Your task to perform on an android device: Do I have any events tomorrow? Image 0: 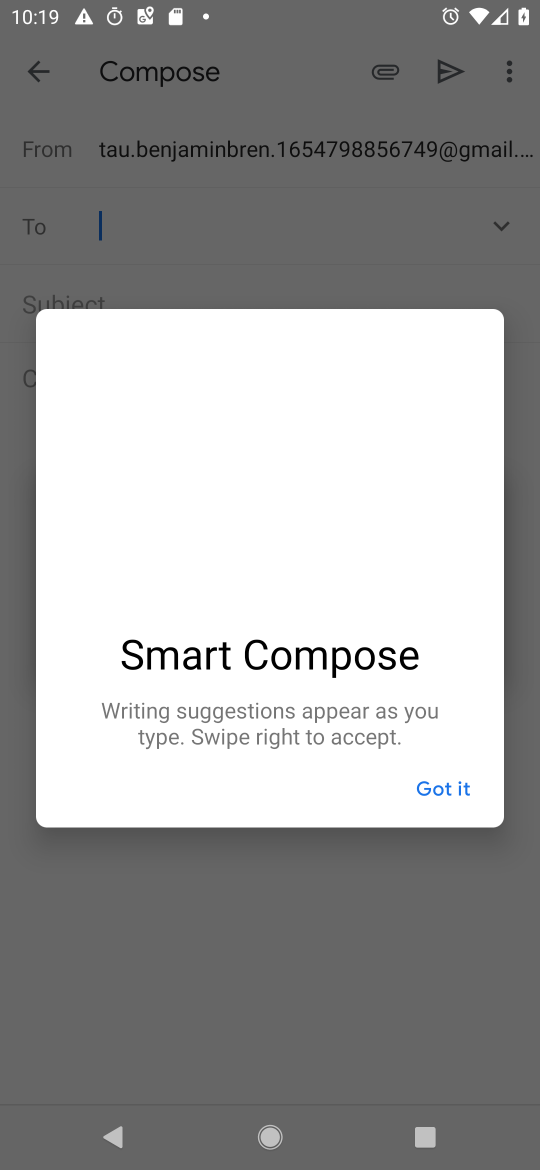
Step 0: press home button
Your task to perform on an android device: Do I have any events tomorrow? Image 1: 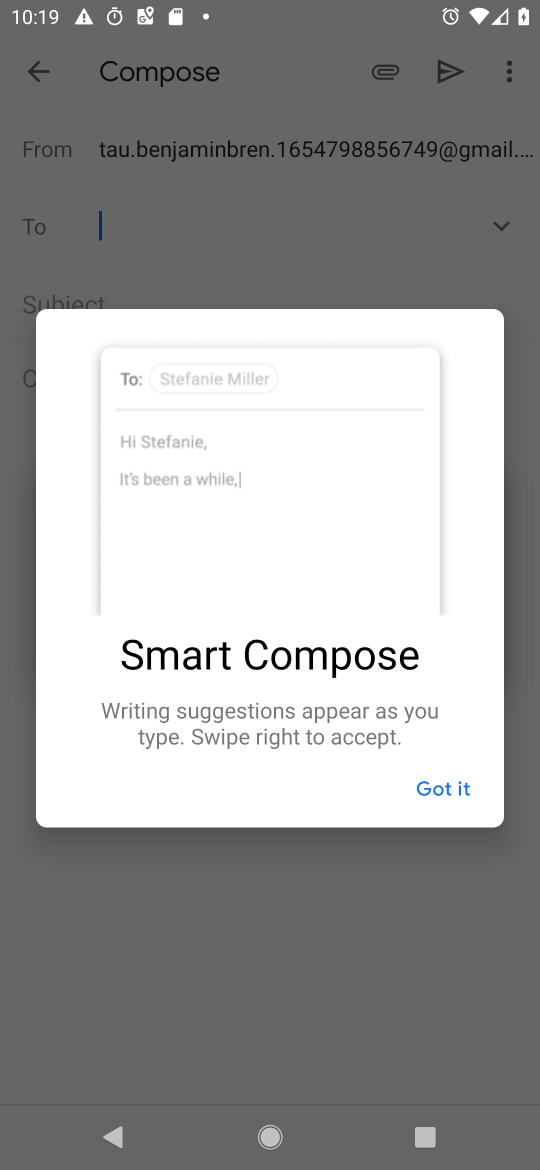
Step 1: press home button
Your task to perform on an android device: Do I have any events tomorrow? Image 2: 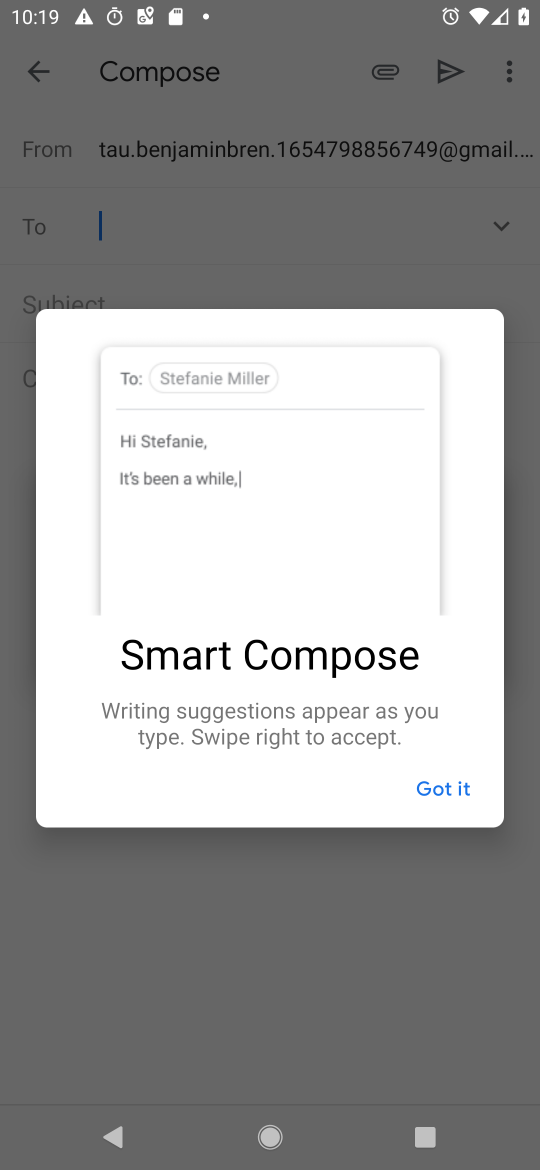
Step 2: click (328, 72)
Your task to perform on an android device: Do I have any events tomorrow? Image 3: 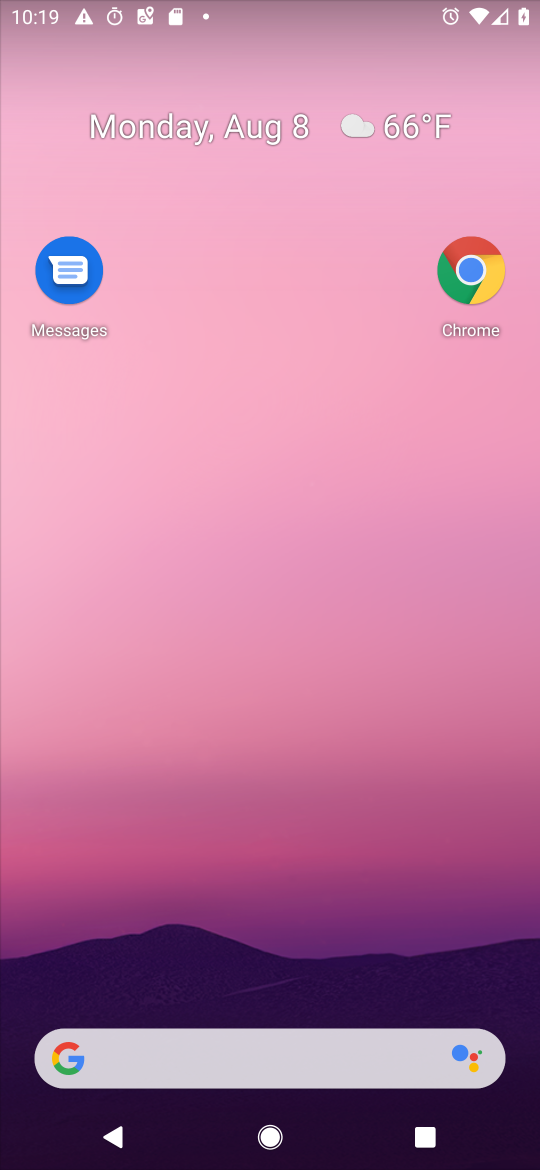
Step 3: drag from (247, 887) to (286, 7)
Your task to perform on an android device: Do I have any events tomorrow? Image 4: 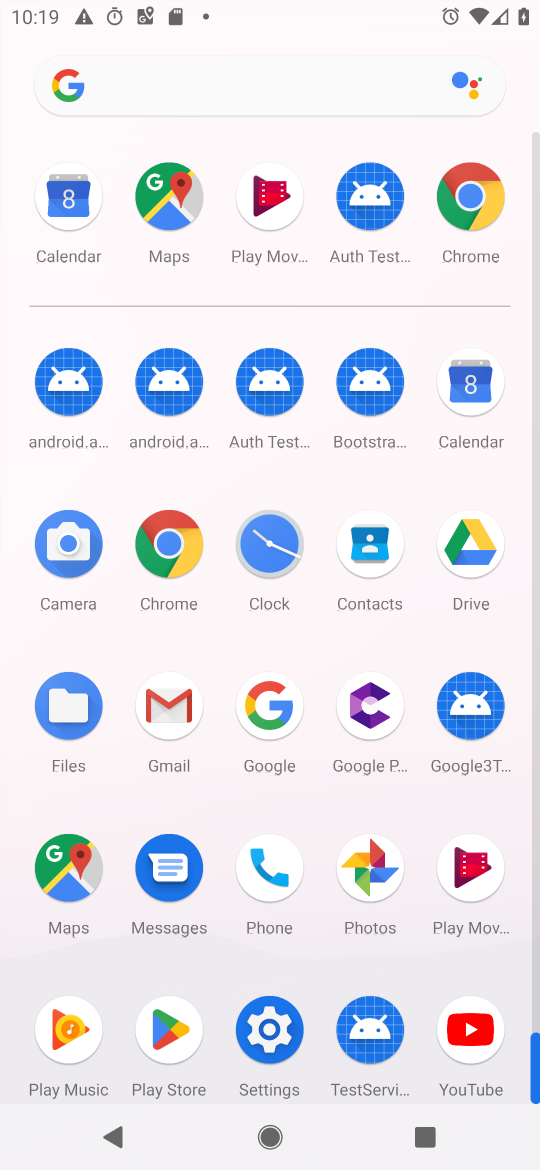
Step 4: click (473, 368)
Your task to perform on an android device: Do I have any events tomorrow? Image 5: 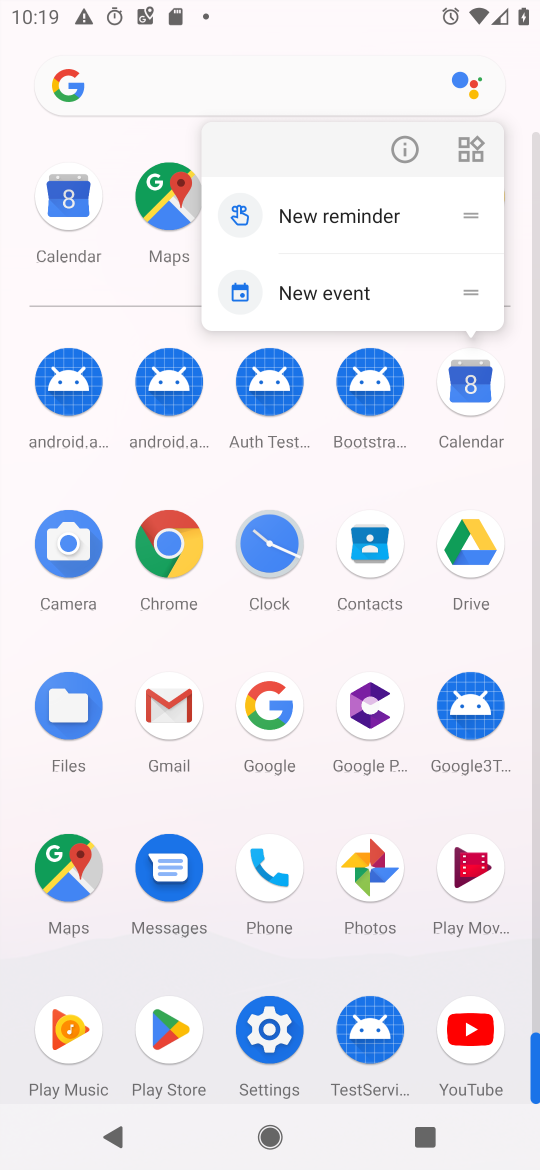
Step 5: click (399, 160)
Your task to perform on an android device: Do I have any events tomorrow? Image 6: 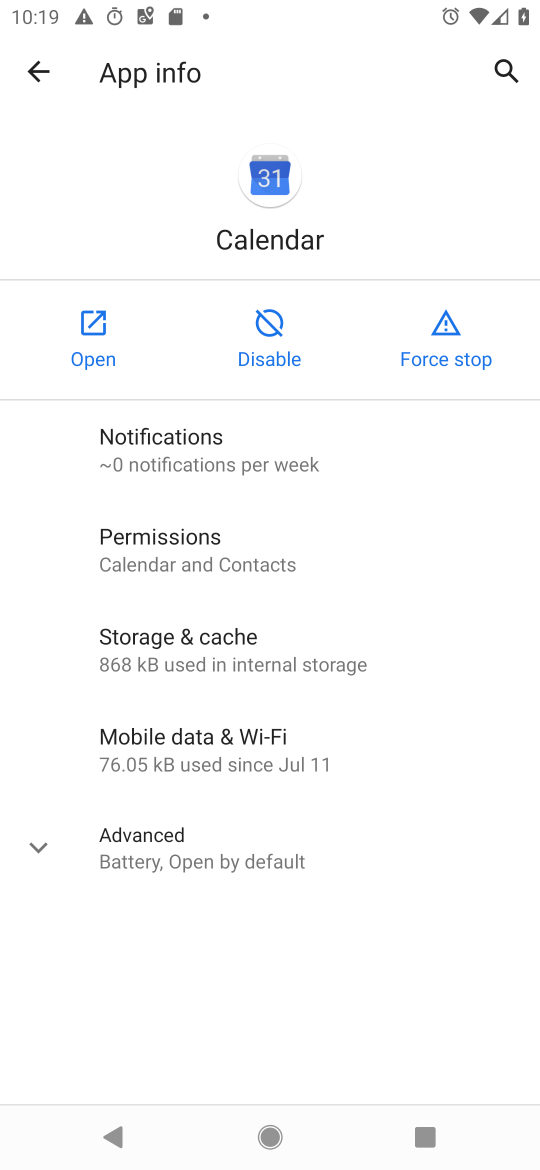
Step 6: click (78, 315)
Your task to perform on an android device: Do I have any events tomorrow? Image 7: 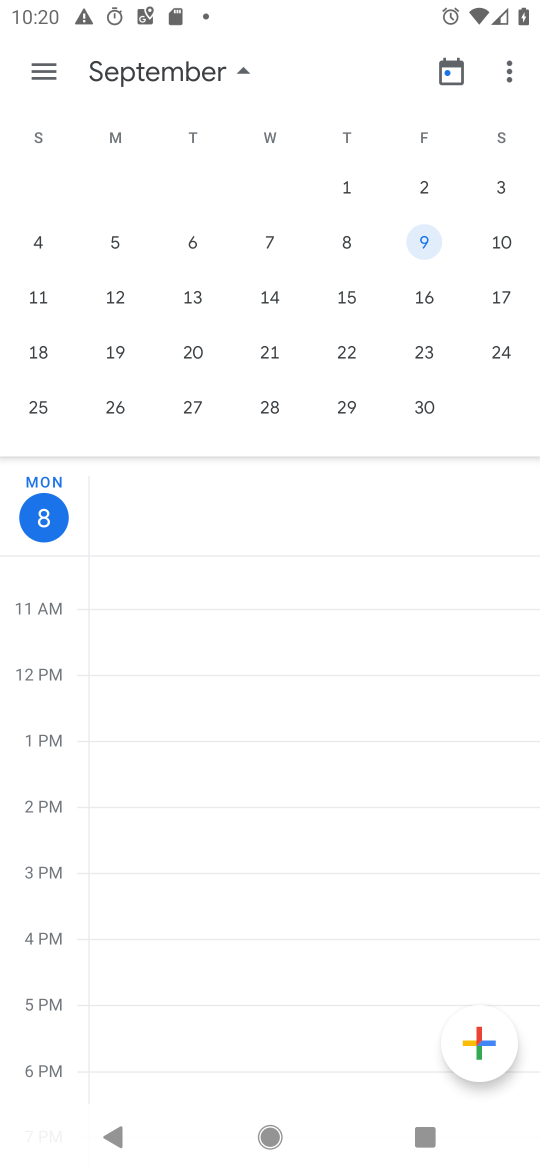
Step 7: click (459, 74)
Your task to perform on an android device: Do I have any events tomorrow? Image 8: 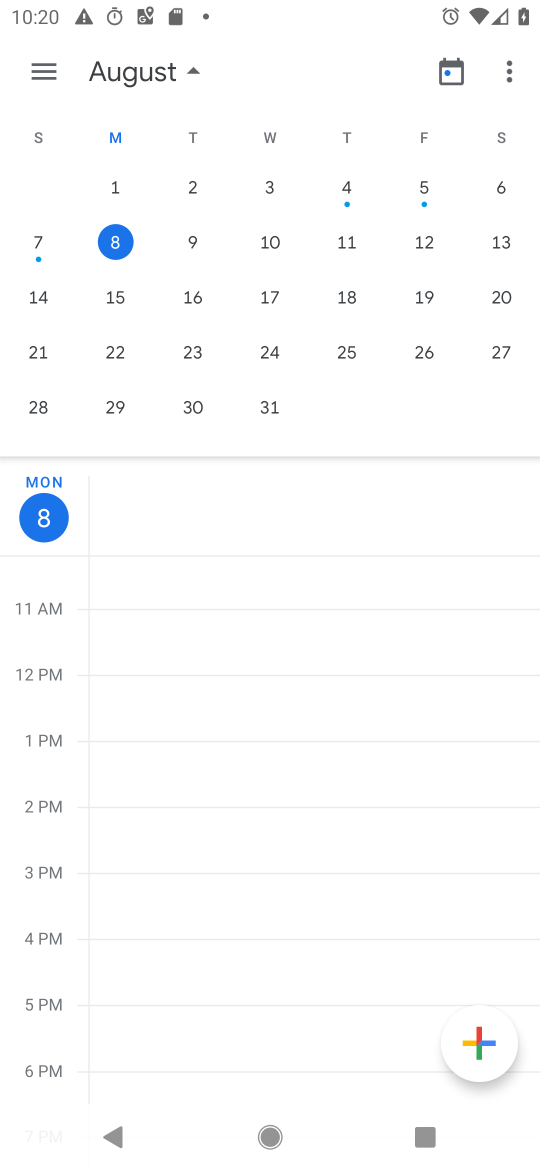
Step 8: click (190, 245)
Your task to perform on an android device: Do I have any events tomorrow? Image 9: 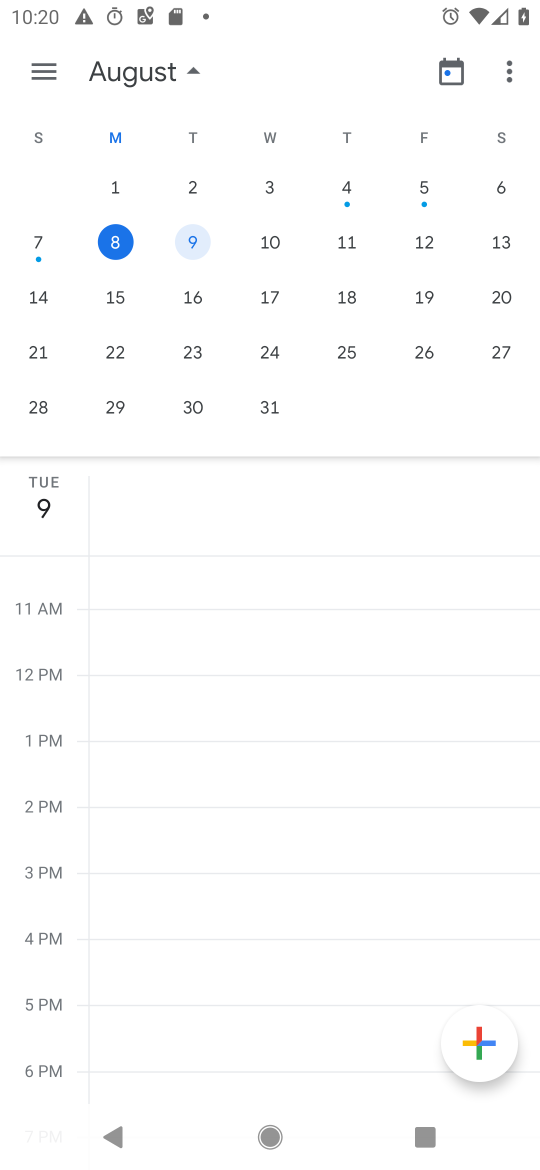
Step 9: task complete